Your task to perform on an android device: turn off location history Image 0: 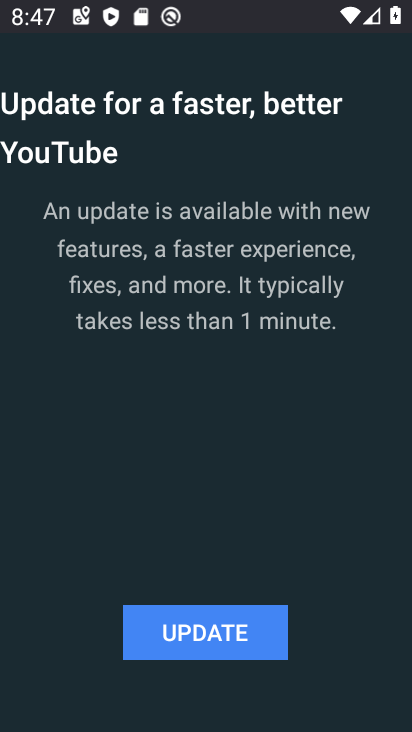
Step 0: press home button
Your task to perform on an android device: turn off location history Image 1: 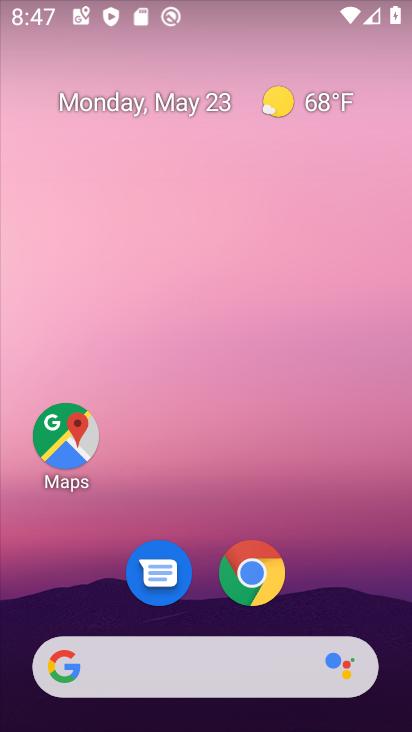
Step 1: drag from (304, 671) to (326, 285)
Your task to perform on an android device: turn off location history Image 2: 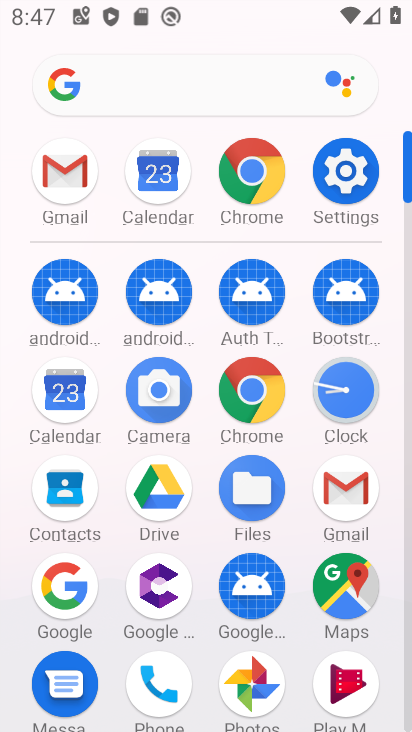
Step 2: click (352, 180)
Your task to perform on an android device: turn off location history Image 3: 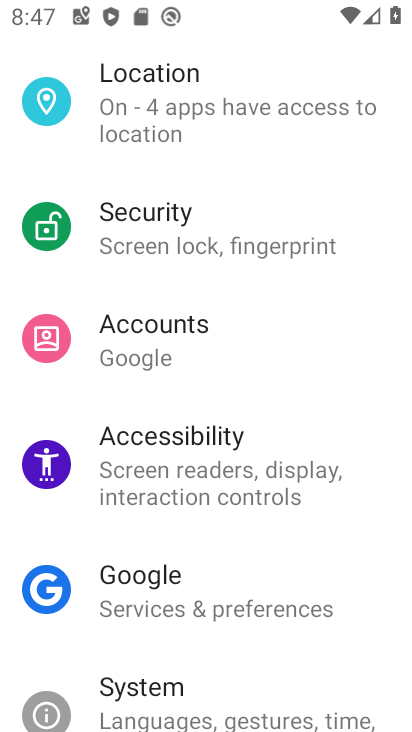
Step 3: click (207, 536)
Your task to perform on an android device: turn off location history Image 4: 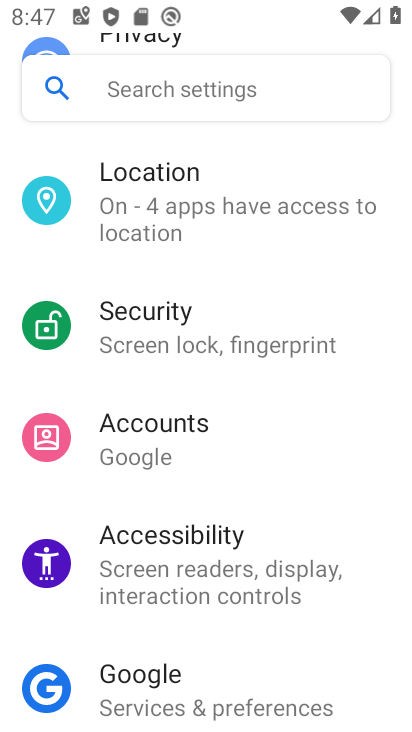
Step 4: click (244, 213)
Your task to perform on an android device: turn off location history Image 5: 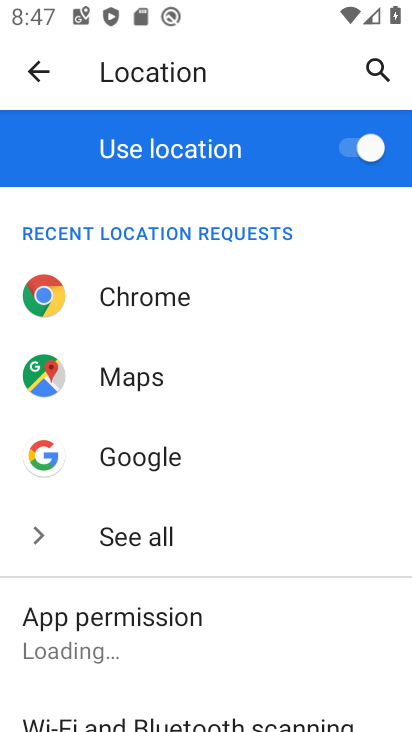
Step 5: drag from (273, 558) to (273, 430)
Your task to perform on an android device: turn off location history Image 6: 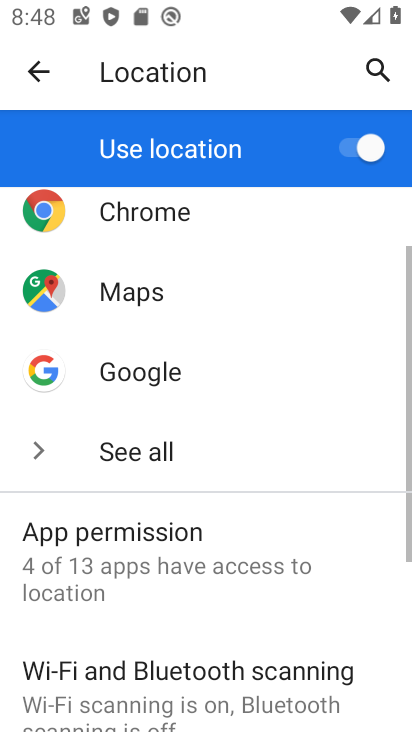
Step 6: drag from (252, 568) to (257, 159)
Your task to perform on an android device: turn off location history Image 7: 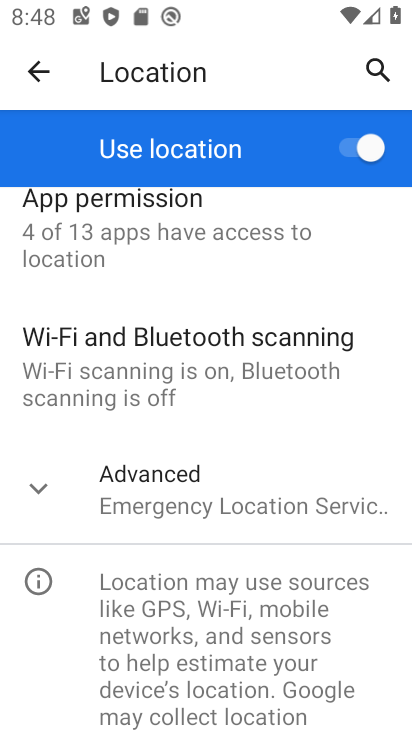
Step 7: click (259, 481)
Your task to perform on an android device: turn off location history Image 8: 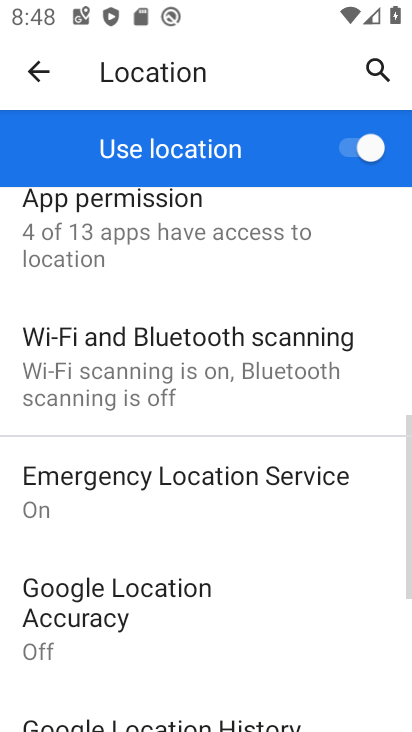
Step 8: drag from (267, 673) to (276, 435)
Your task to perform on an android device: turn off location history Image 9: 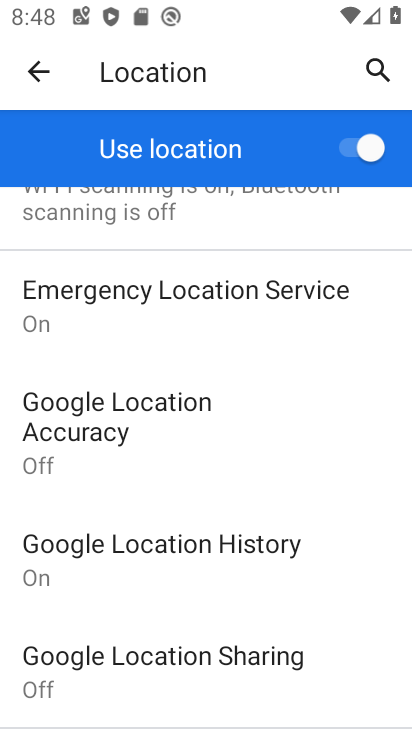
Step 9: click (264, 544)
Your task to perform on an android device: turn off location history Image 10: 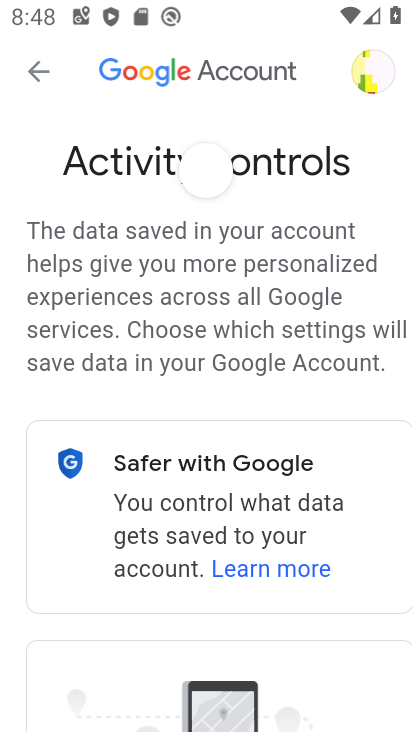
Step 10: task complete